Your task to perform on an android device: toggle priority inbox in the gmail app Image 0: 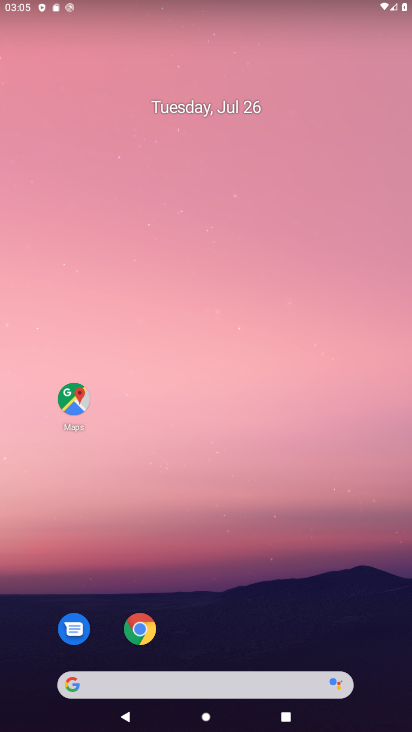
Step 0: press home button
Your task to perform on an android device: toggle priority inbox in the gmail app Image 1: 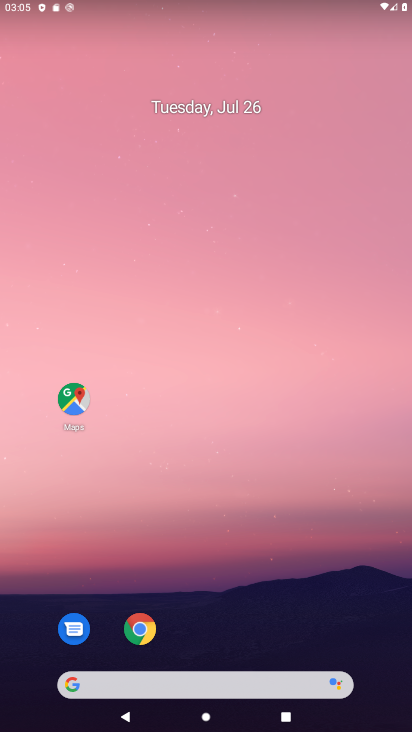
Step 1: drag from (313, 657) to (182, 0)
Your task to perform on an android device: toggle priority inbox in the gmail app Image 2: 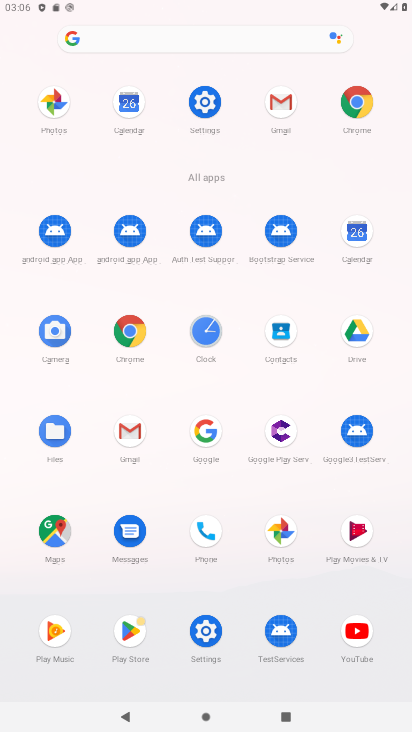
Step 2: click (279, 88)
Your task to perform on an android device: toggle priority inbox in the gmail app Image 3: 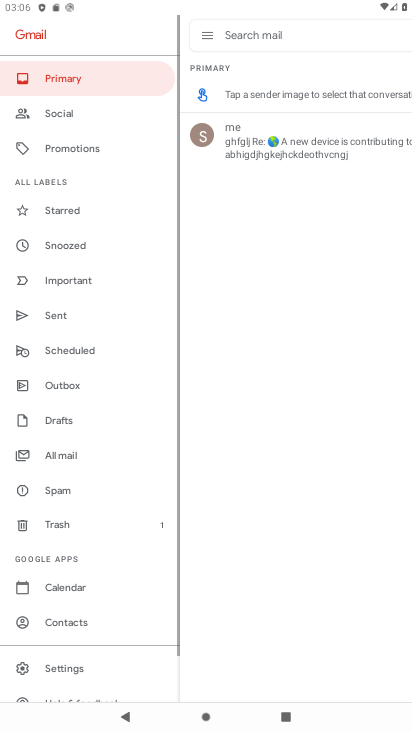
Step 3: click (195, 41)
Your task to perform on an android device: toggle priority inbox in the gmail app Image 4: 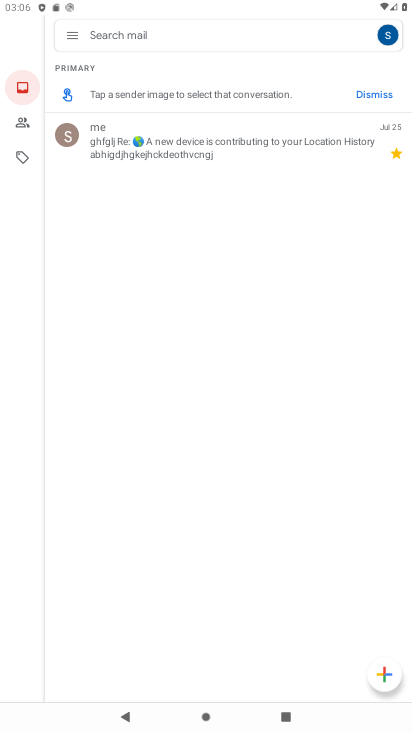
Step 4: click (80, 38)
Your task to perform on an android device: toggle priority inbox in the gmail app Image 5: 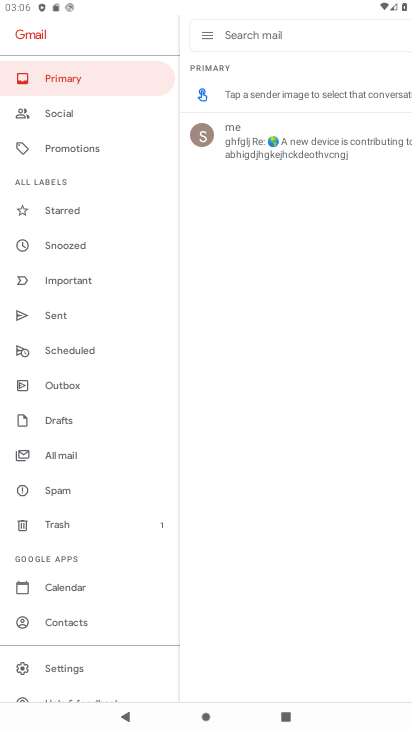
Step 5: click (49, 674)
Your task to perform on an android device: toggle priority inbox in the gmail app Image 6: 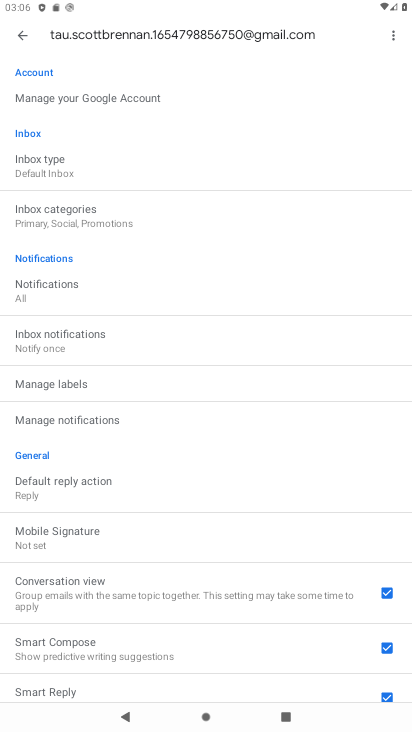
Step 6: drag from (158, 597) to (175, 730)
Your task to perform on an android device: toggle priority inbox in the gmail app Image 7: 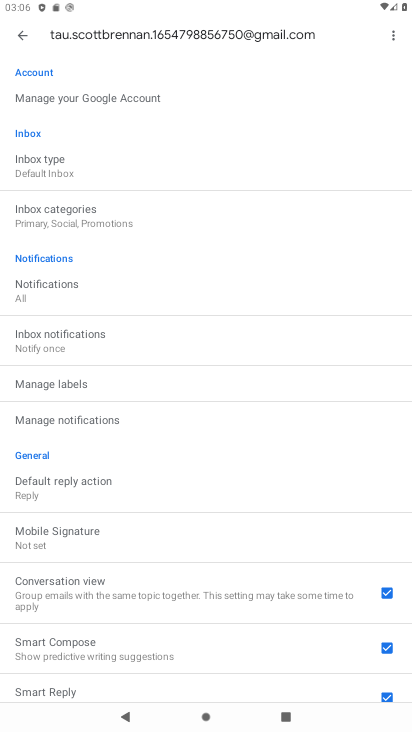
Step 7: click (45, 158)
Your task to perform on an android device: toggle priority inbox in the gmail app Image 8: 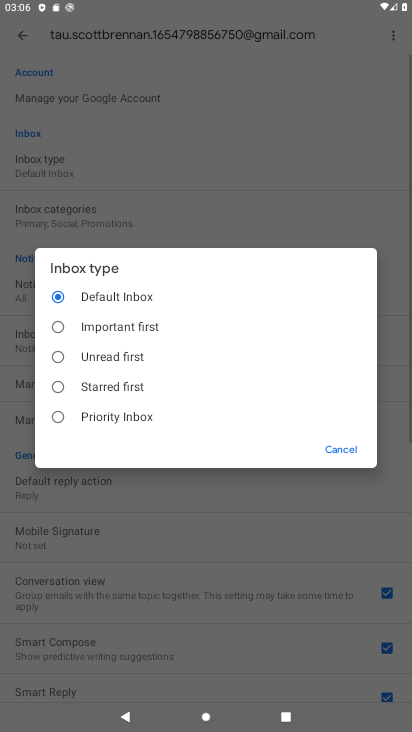
Step 8: click (118, 419)
Your task to perform on an android device: toggle priority inbox in the gmail app Image 9: 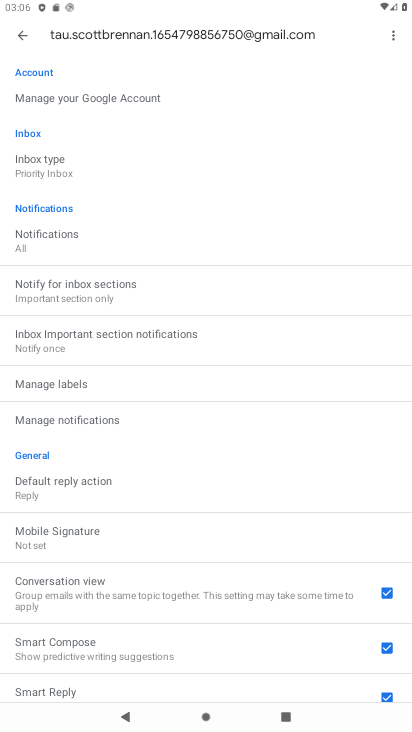
Step 9: task complete